Your task to perform on an android device: turn off sleep mode Image 0: 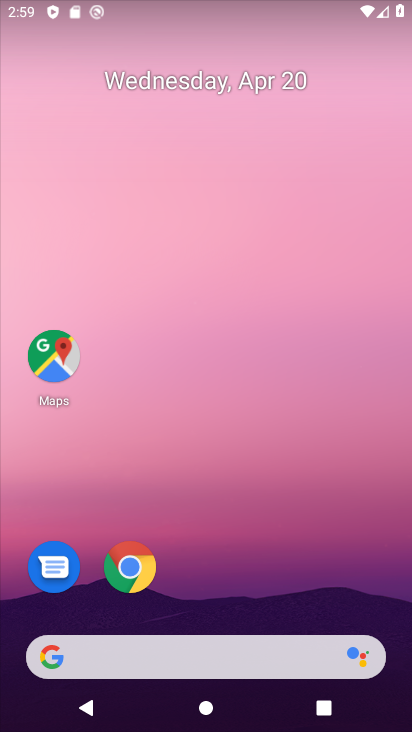
Step 0: drag from (253, 578) to (223, 264)
Your task to perform on an android device: turn off sleep mode Image 1: 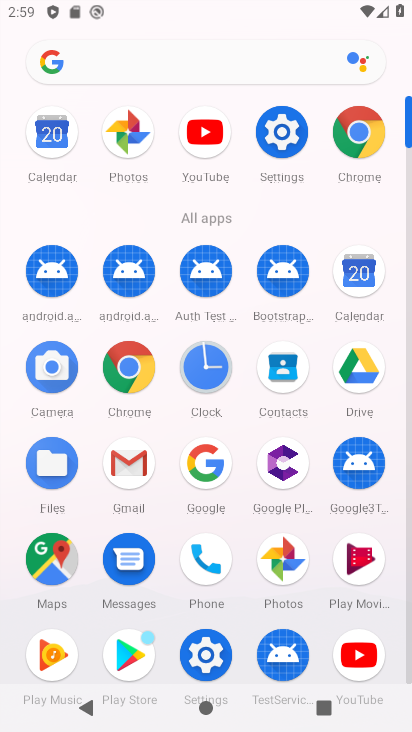
Step 1: click (285, 150)
Your task to perform on an android device: turn off sleep mode Image 2: 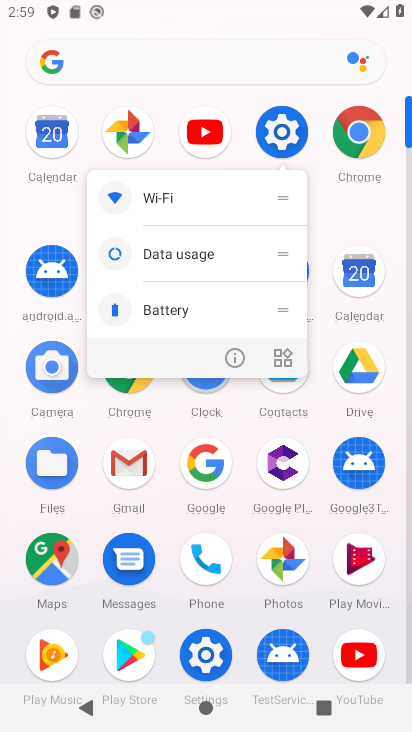
Step 2: click (285, 150)
Your task to perform on an android device: turn off sleep mode Image 3: 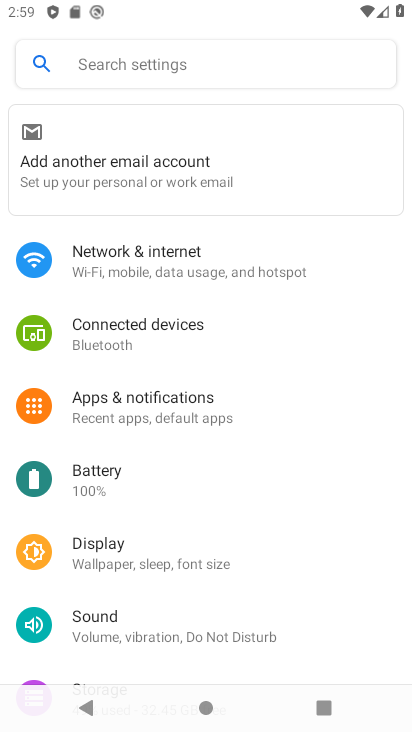
Step 3: click (211, 562)
Your task to perform on an android device: turn off sleep mode Image 4: 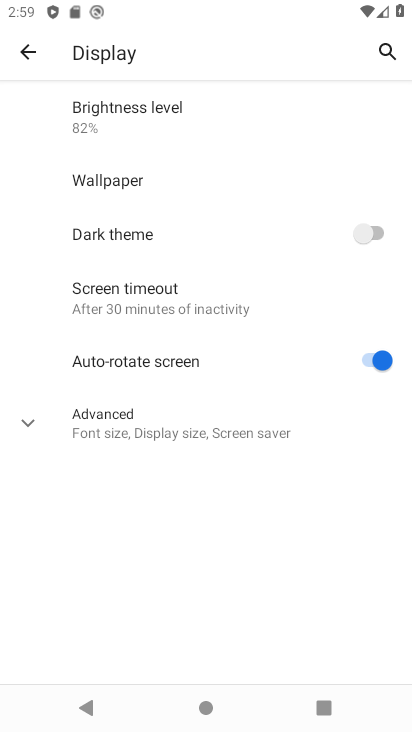
Step 4: task complete